Your task to perform on an android device: turn on bluetooth scan Image 0: 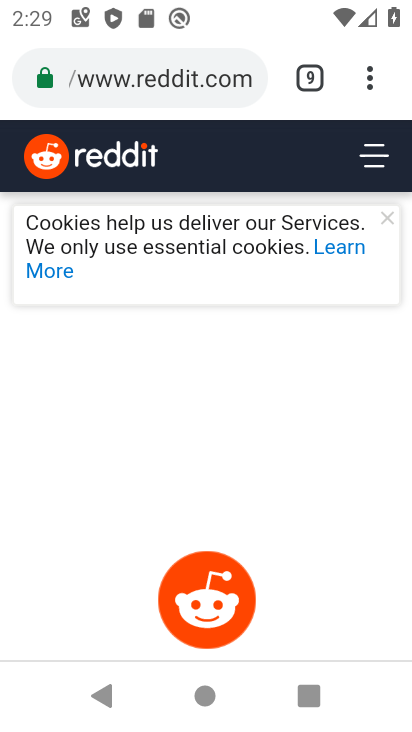
Step 0: press home button
Your task to perform on an android device: turn on bluetooth scan Image 1: 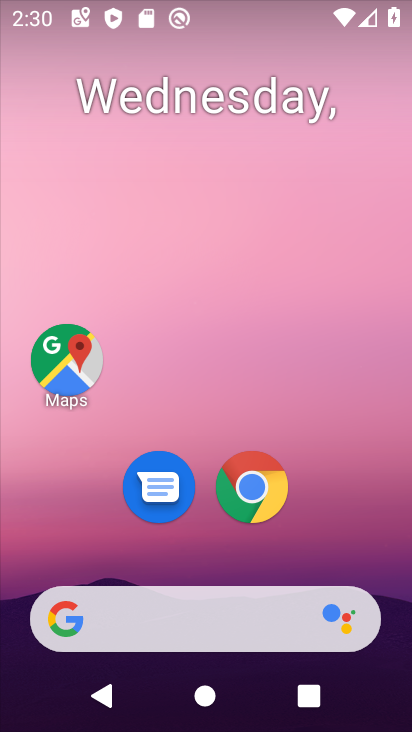
Step 1: drag from (324, 522) to (227, 105)
Your task to perform on an android device: turn on bluetooth scan Image 2: 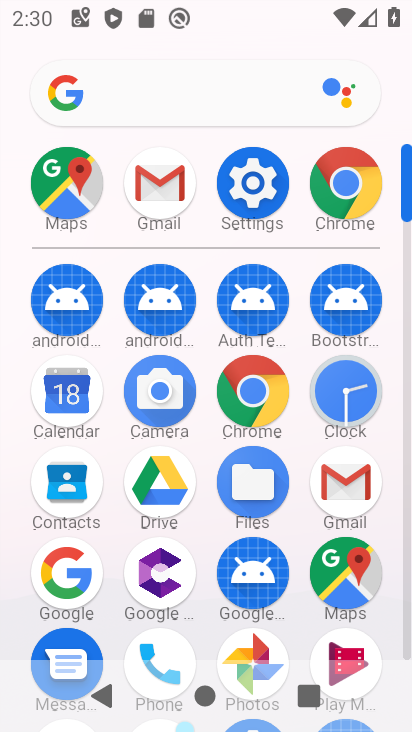
Step 2: click (248, 189)
Your task to perform on an android device: turn on bluetooth scan Image 3: 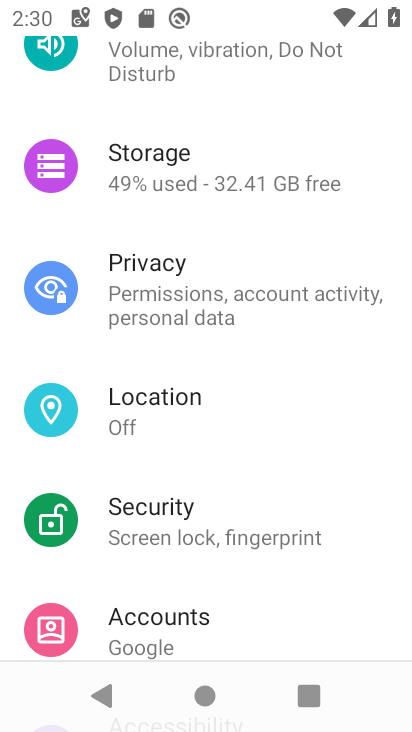
Step 3: click (140, 402)
Your task to perform on an android device: turn on bluetooth scan Image 4: 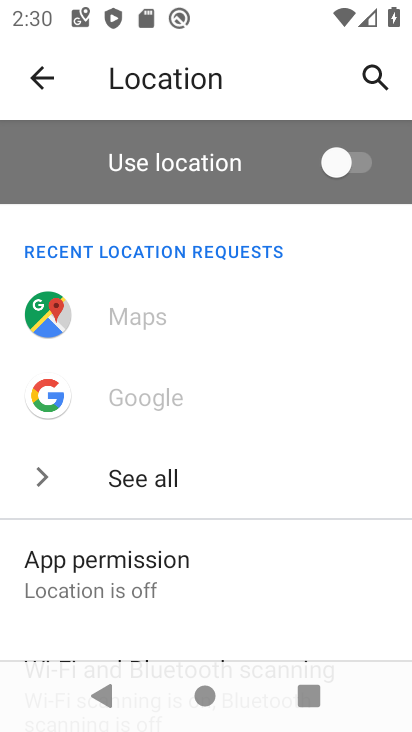
Step 4: drag from (323, 432) to (262, 147)
Your task to perform on an android device: turn on bluetooth scan Image 5: 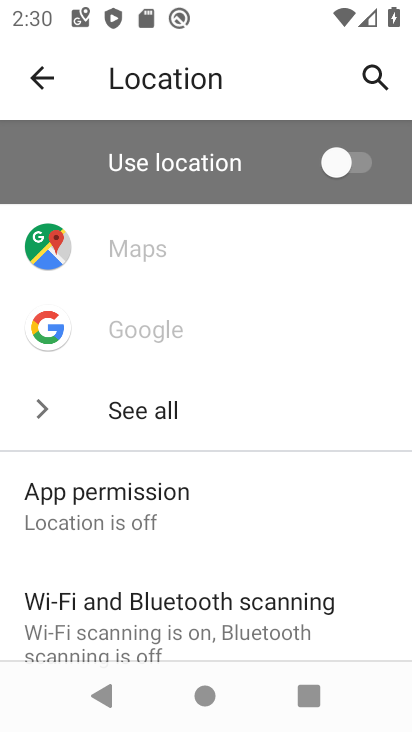
Step 5: click (107, 596)
Your task to perform on an android device: turn on bluetooth scan Image 6: 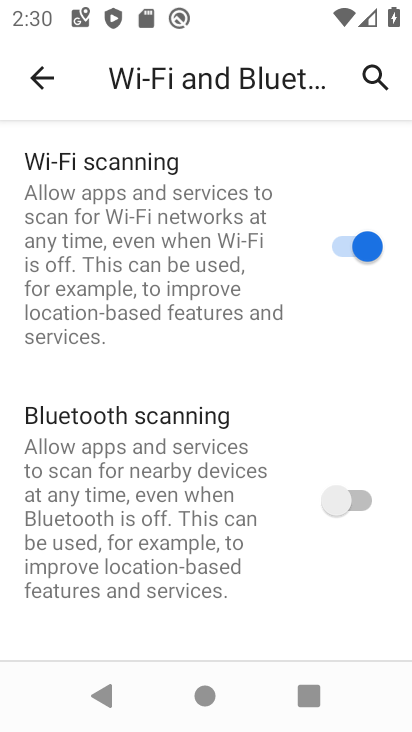
Step 6: click (334, 493)
Your task to perform on an android device: turn on bluetooth scan Image 7: 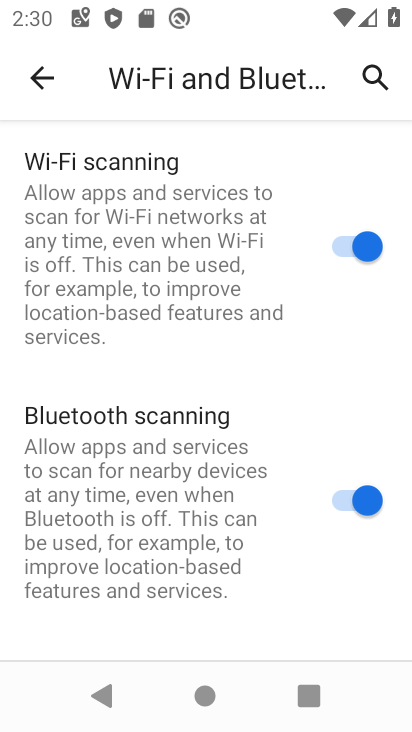
Step 7: task complete